Your task to perform on an android device: turn off location history Image 0: 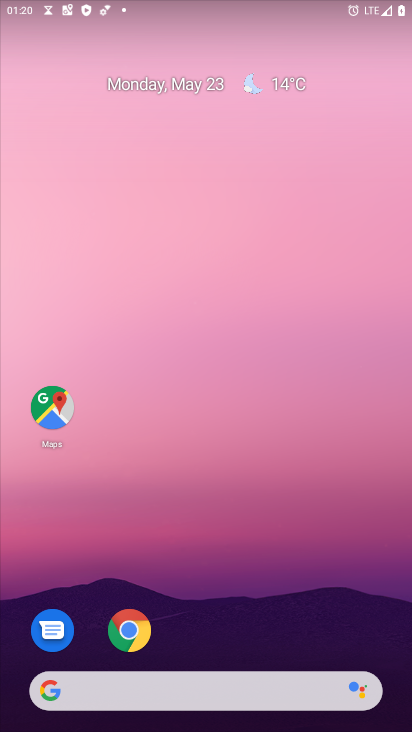
Step 0: drag from (283, 582) to (153, 4)
Your task to perform on an android device: turn off location history Image 1: 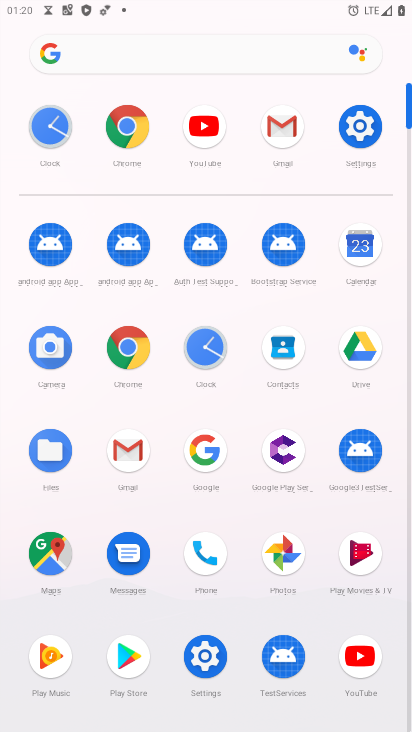
Step 1: click (366, 129)
Your task to perform on an android device: turn off location history Image 2: 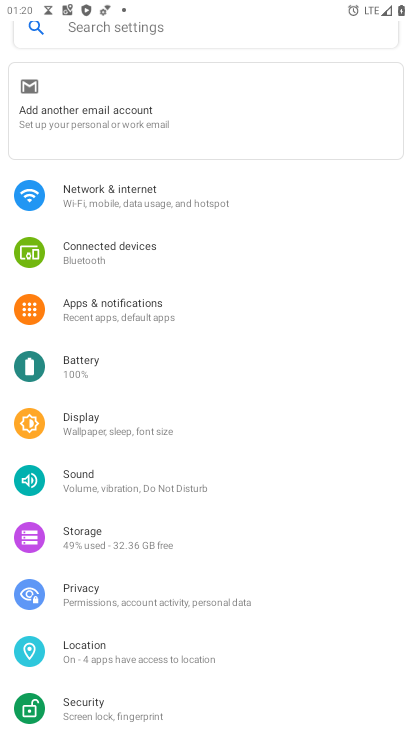
Step 2: click (166, 649)
Your task to perform on an android device: turn off location history Image 3: 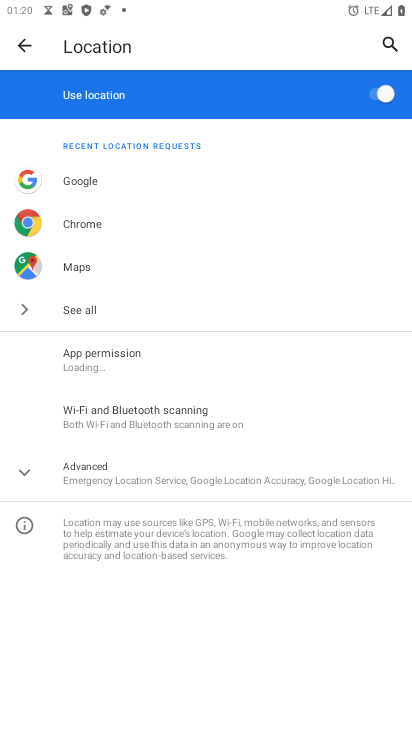
Step 3: click (204, 460)
Your task to perform on an android device: turn off location history Image 4: 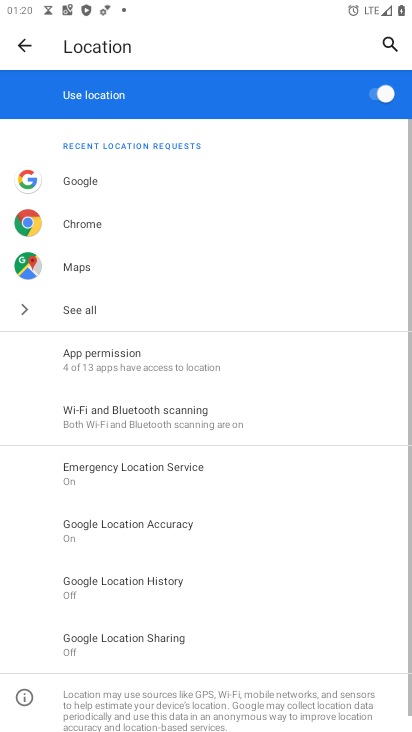
Step 4: click (214, 582)
Your task to perform on an android device: turn off location history Image 5: 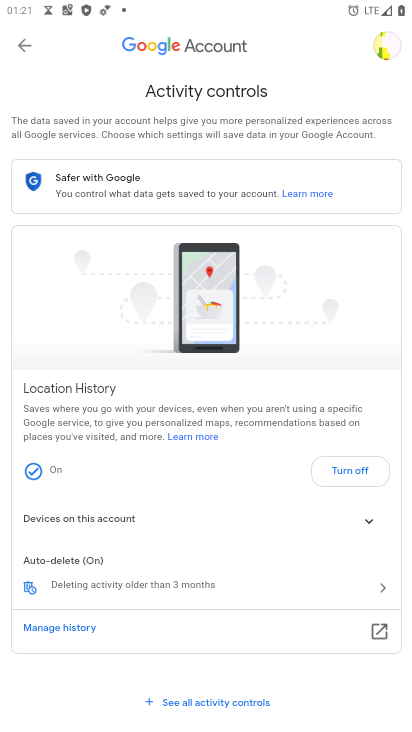
Step 5: click (361, 465)
Your task to perform on an android device: turn off location history Image 6: 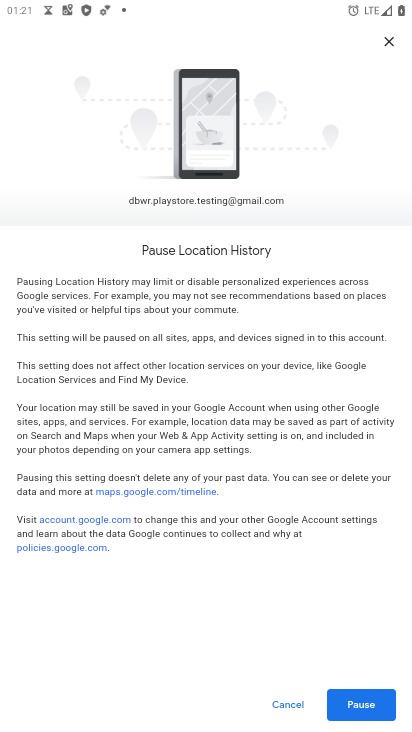
Step 6: click (378, 703)
Your task to perform on an android device: turn off location history Image 7: 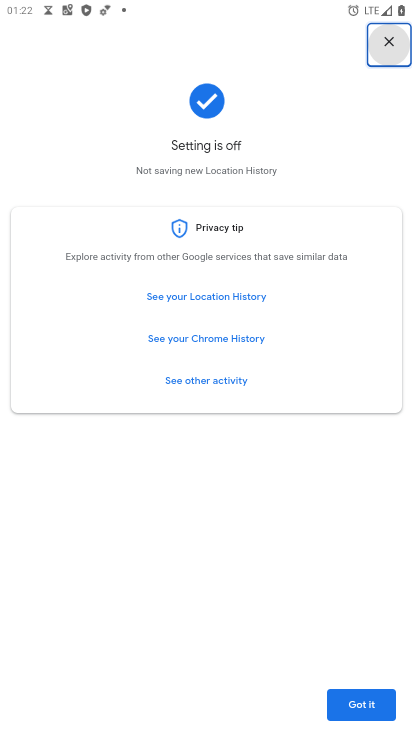
Step 7: click (375, 708)
Your task to perform on an android device: turn off location history Image 8: 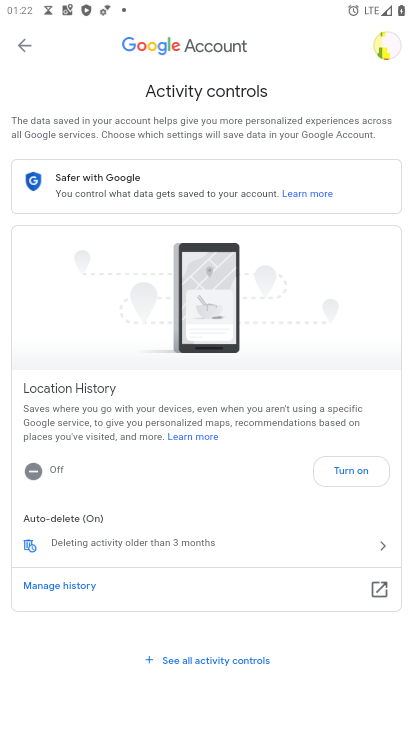
Step 8: task complete